Your task to perform on an android device: Open internet settings Image 0: 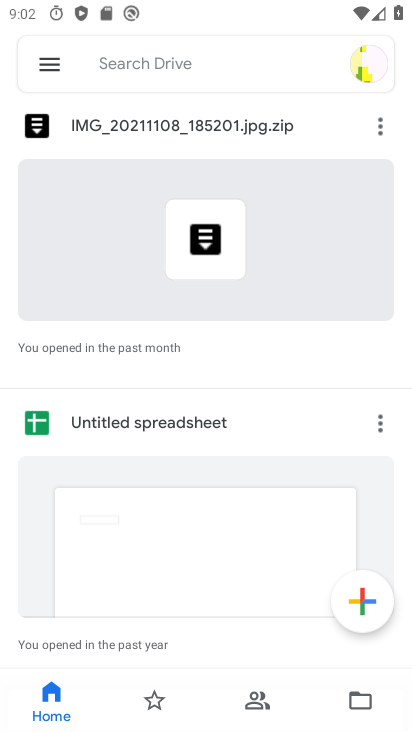
Step 0: task complete